Your task to perform on an android device: Open Google Maps Image 0: 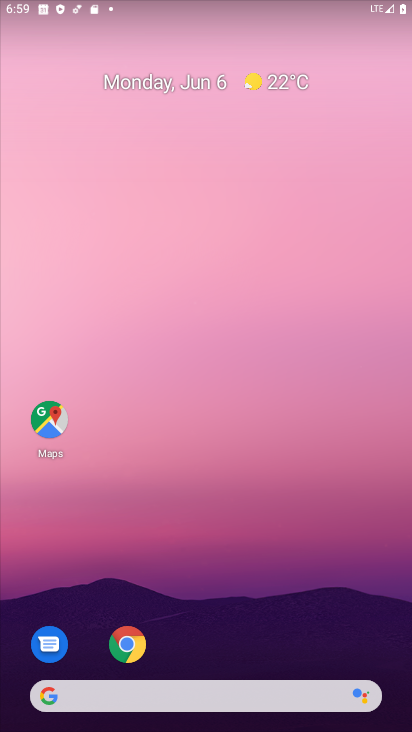
Step 0: drag from (204, 712) to (248, 176)
Your task to perform on an android device: Open Google Maps Image 1: 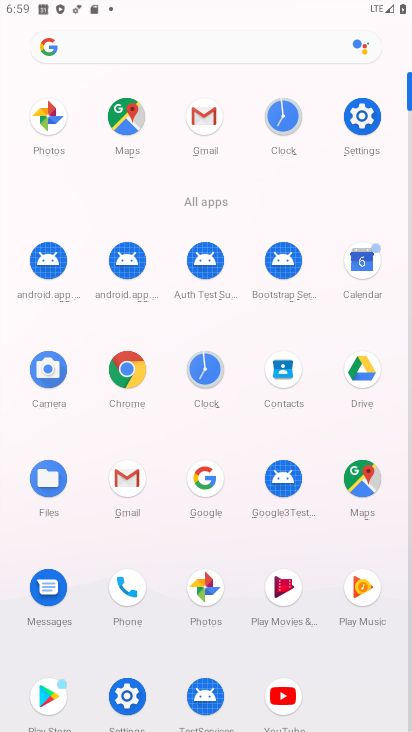
Step 1: click (114, 130)
Your task to perform on an android device: Open Google Maps Image 2: 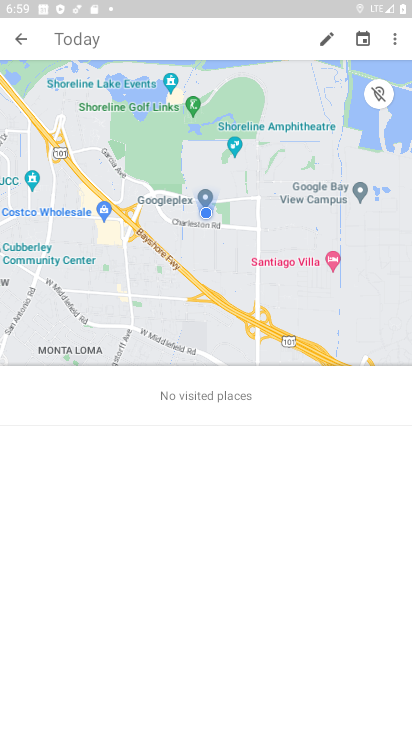
Step 2: click (16, 26)
Your task to perform on an android device: Open Google Maps Image 3: 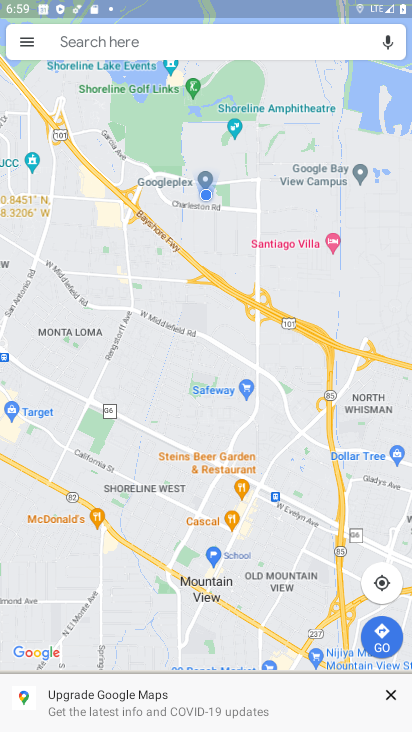
Step 3: click (381, 585)
Your task to perform on an android device: Open Google Maps Image 4: 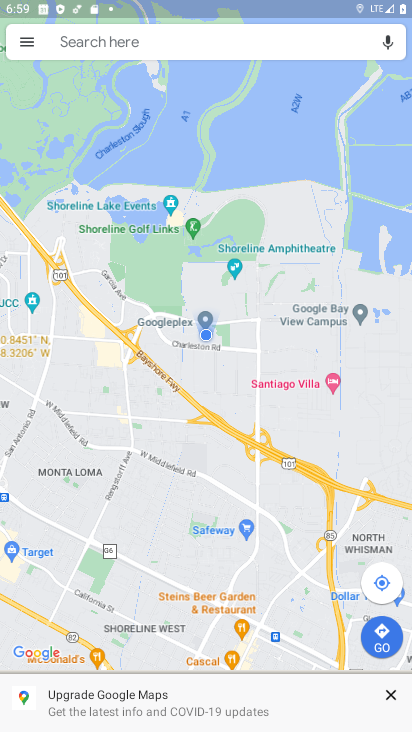
Step 4: task complete